Your task to perform on an android device: Search for seafood restaurants on Google Maps Image 0: 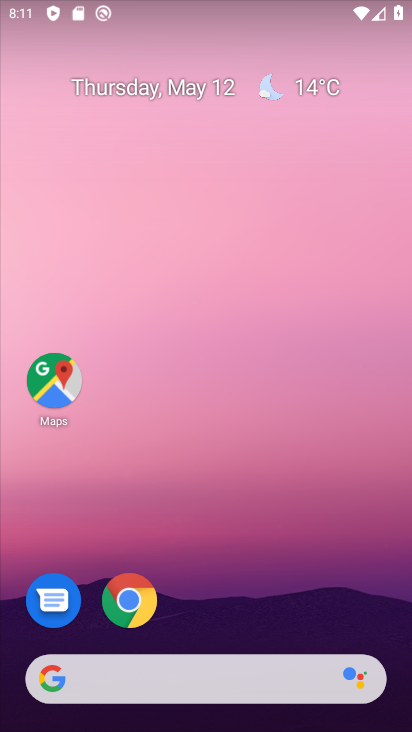
Step 0: drag from (196, 385) to (398, 165)
Your task to perform on an android device: Search for seafood restaurants on Google Maps Image 1: 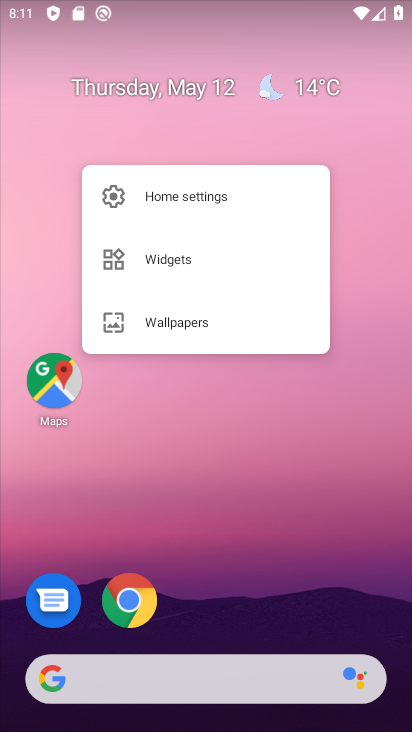
Step 1: click (218, 412)
Your task to perform on an android device: Search for seafood restaurants on Google Maps Image 2: 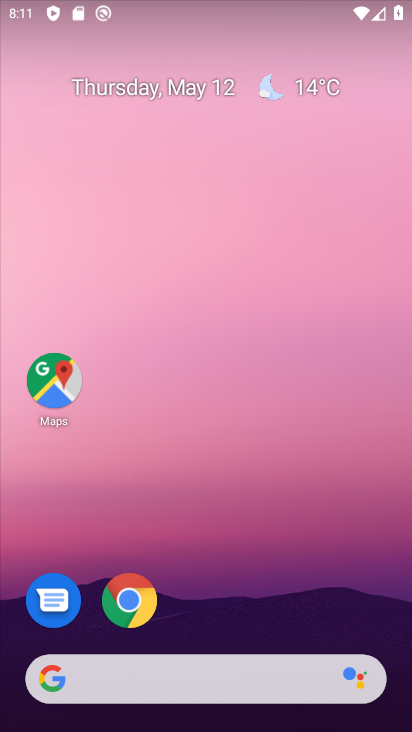
Step 2: click (218, 412)
Your task to perform on an android device: Search for seafood restaurants on Google Maps Image 3: 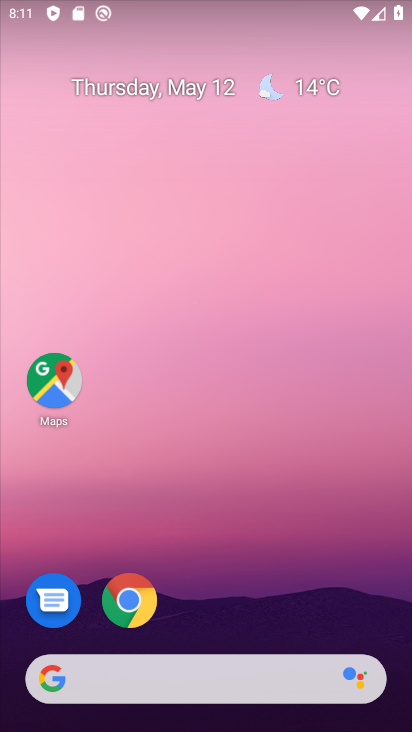
Step 3: click (71, 243)
Your task to perform on an android device: Search for seafood restaurants on Google Maps Image 4: 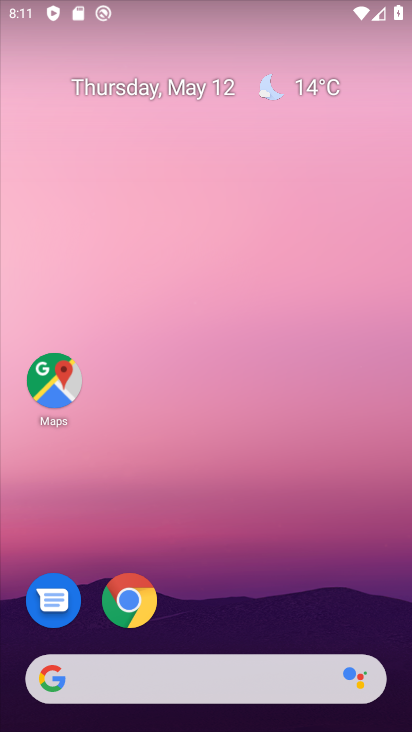
Step 4: drag from (71, 232) to (76, 65)
Your task to perform on an android device: Search for seafood restaurants on Google Maps Image 5: 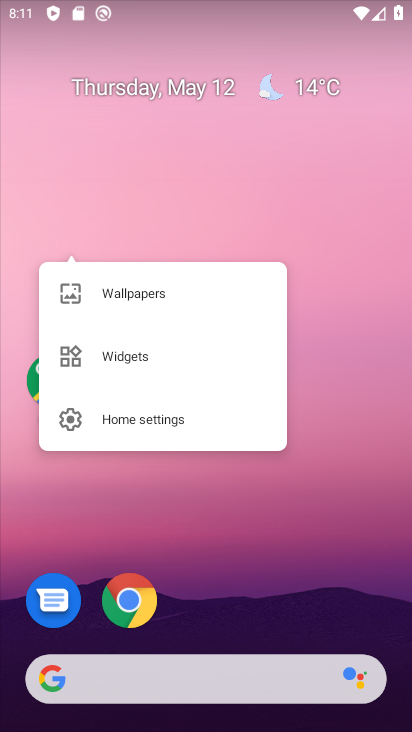
Step 5: drag from (224, 385) to (149, 21)
Your task to perform on an android device: Search for seafood restaurants on Google Maps Image 6: 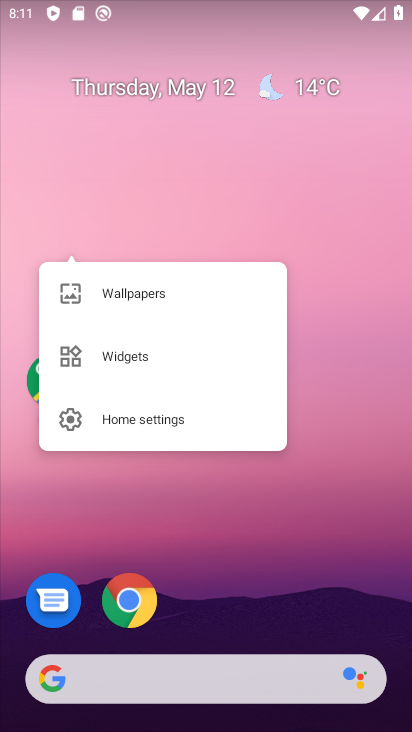
Step 6: drag from (70, 36) to (399, 248)
Your task to perform on an android device: Search for seafood restaurants on Google Maps Image 7: 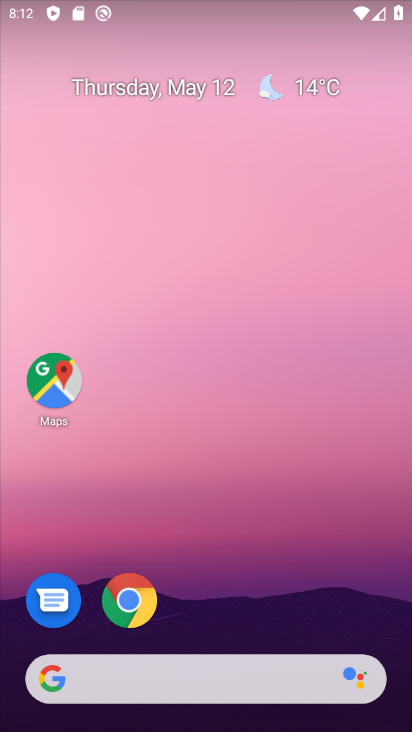
Step 7: drag from (263, 615) to (130, 1)
Your task to perform on an android device: Search for seafood restaurants on Google Maps Image 8: 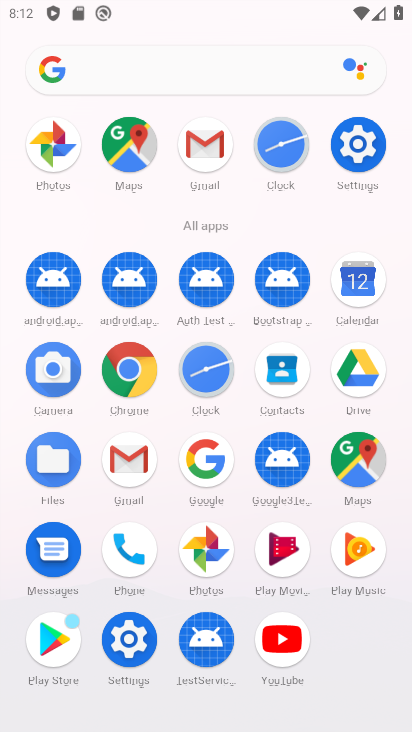
Step 8: click (119, 25)
Your task to perform on an android device: Search for seafood restaurants on Google Maps Image 9: 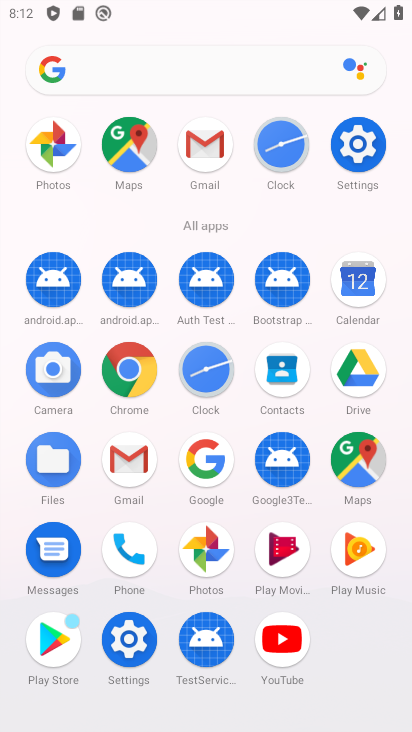
Step 9: drag from (49, 123) to (86, 46)
Your task to perform on an android device: Search for seafood restaurants on Google Maps Image 10: 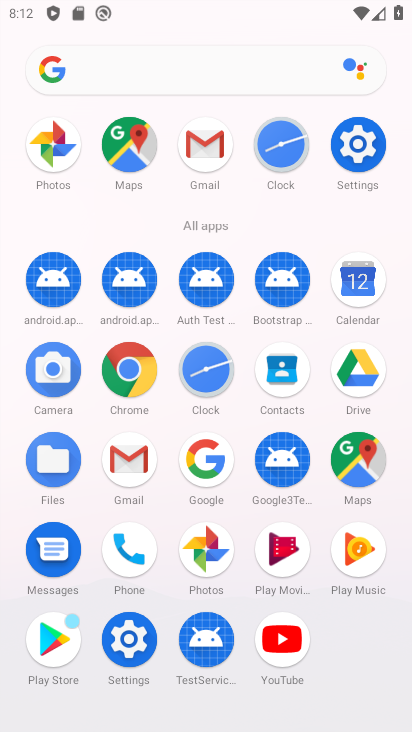
Step 10: drag from (145, 18) to (200, 498)
Your task to perform on an android device: Search for seafood restaurants on Google Maps Image 11: 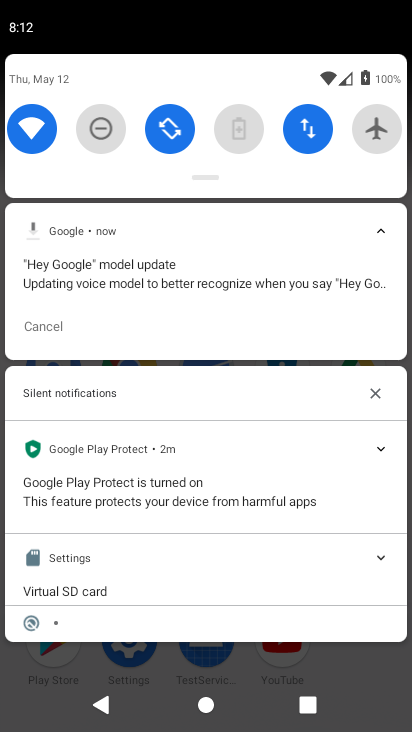
Step 11: click (178, 481)
Your task to perform on an android device: Search for seafood restaurants on Google Maps Image 12: 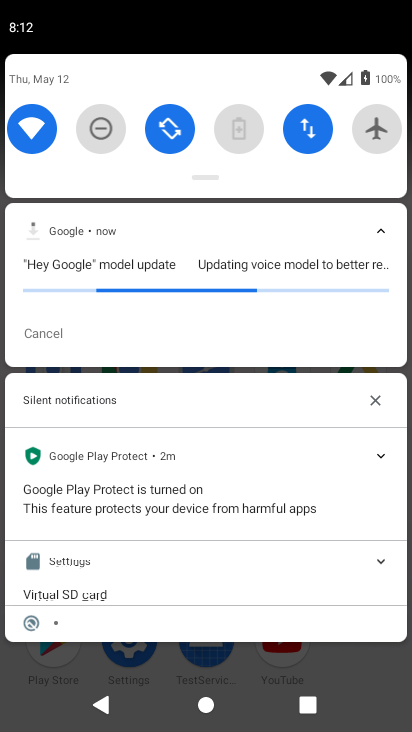
Step 12: click (129, 159)
Your task to perform on an android device: Search for seafood restaurants on Google Maps Image 13: 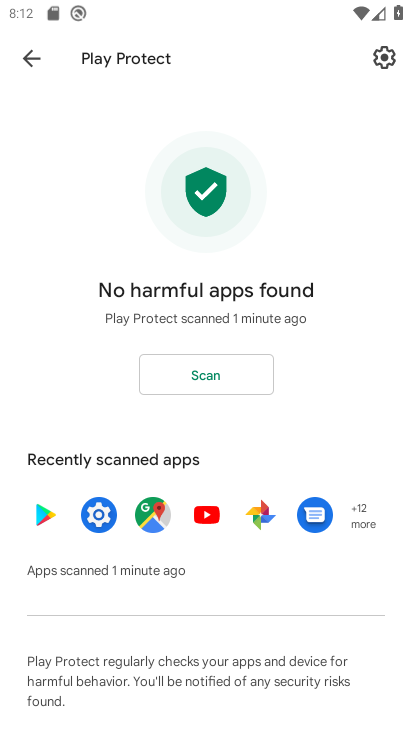
Step 13: press back button
Your task to perform on an android device: Search for seafood restaurants on Google Maps Image 14: 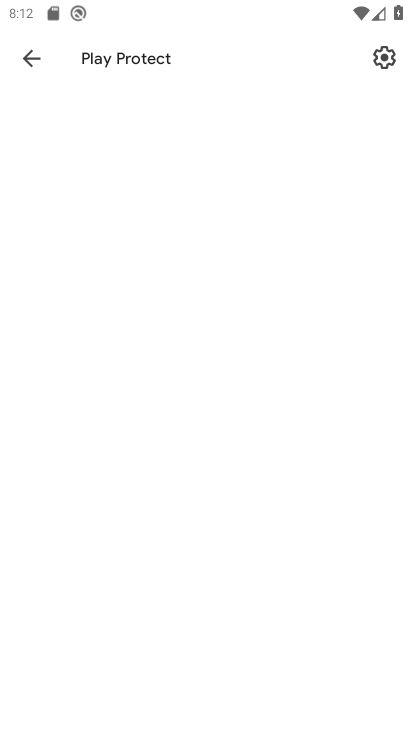
Step 14: press back button
Your task to perform on an android device: Search for seafood restaurants on Google Maps Image 15: 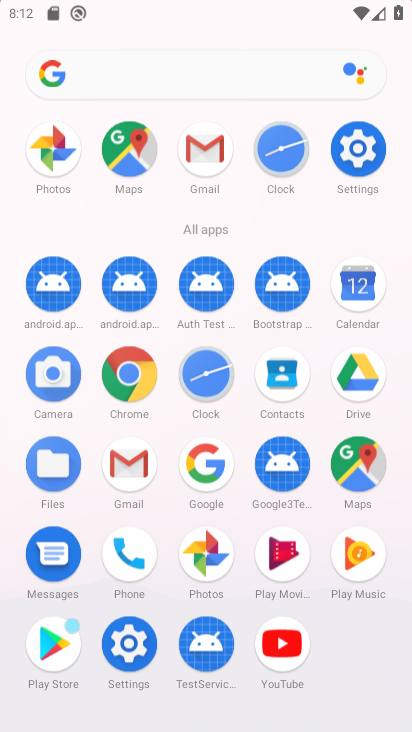
Step 15: press back button
Your task to perform on an android device: Search for seafood restaurants on Google Maps Image 16: 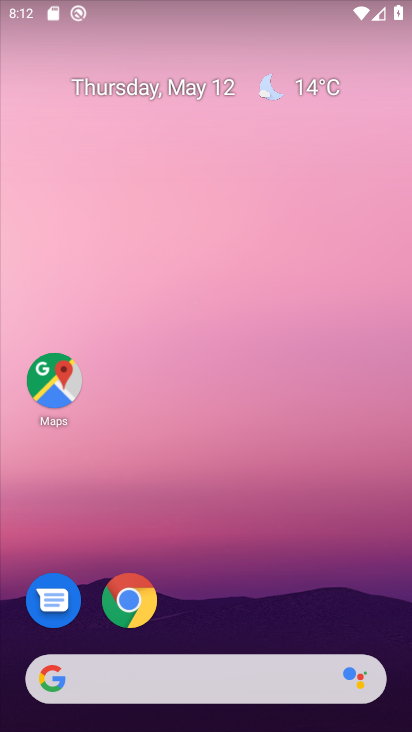
Step 16: drag from (248, 667) to (97, 49)
Your task to perform on an android device: Search for seafood restaurants on Google Maps Image 17: 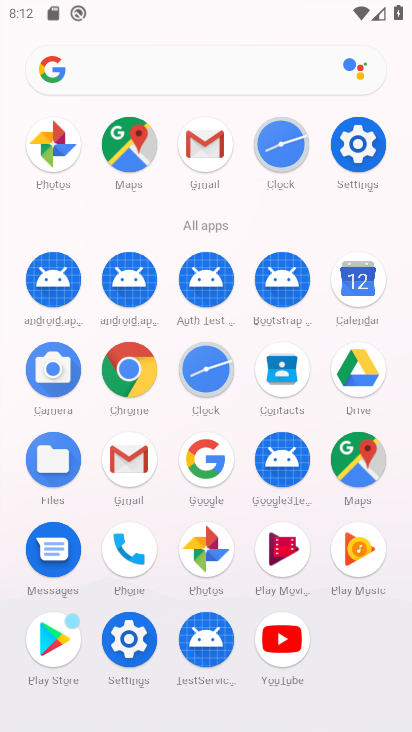
Step 17: drag from (282, 487) to (128, 17)
Your task to perform on an android device: Search for seafood restaurants on Google Maps Image 18: 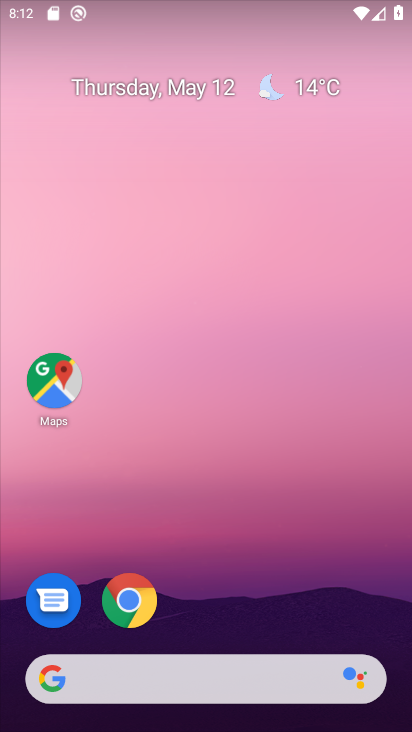
Step 18: drag from (195, 583) to (68, 24)
Your task to perform on an android device: Search for seafood restaurants on Google Maps Image 19: 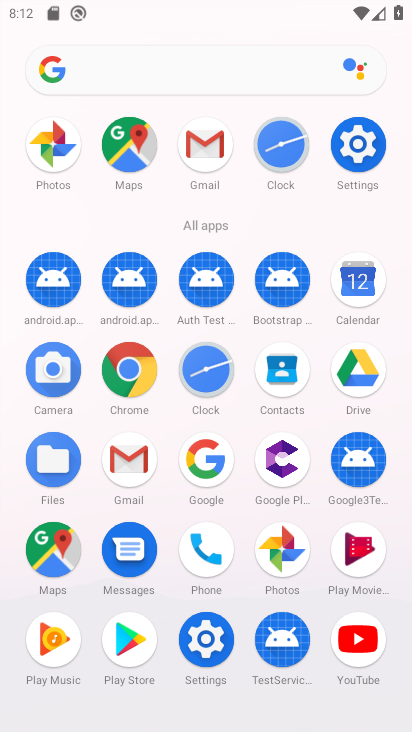
Step 19: click (124, 140)
Your task to perform on an android device: Search for seafood restaurants on Google Maps Image 20: 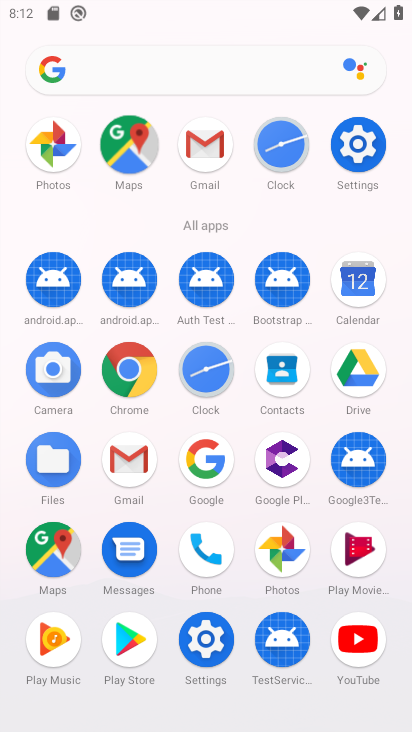
Step 20: click (124, 140)
Your task to perform on an android device: Search for seafood restaurants on Google Maps Image 21: 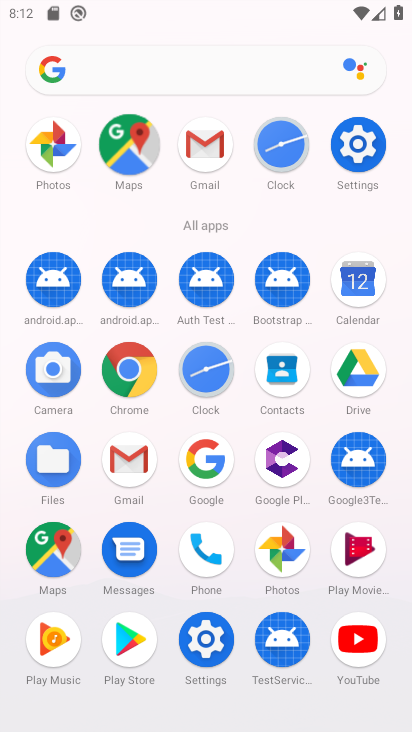
Step 21: click (124, 140)
Your task to perform on an android device: Search for seafood restaurants on Google Maps Image 22: 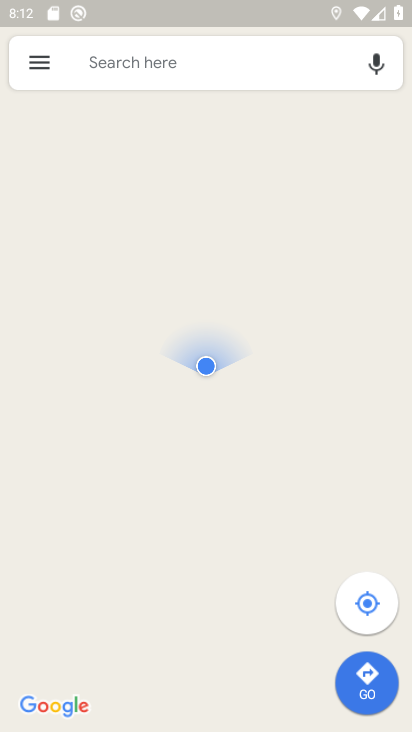
Step 22: click (103, 53)
Your task to perform on an android device: Search for seafood restaurants on Google Maps Image 23: 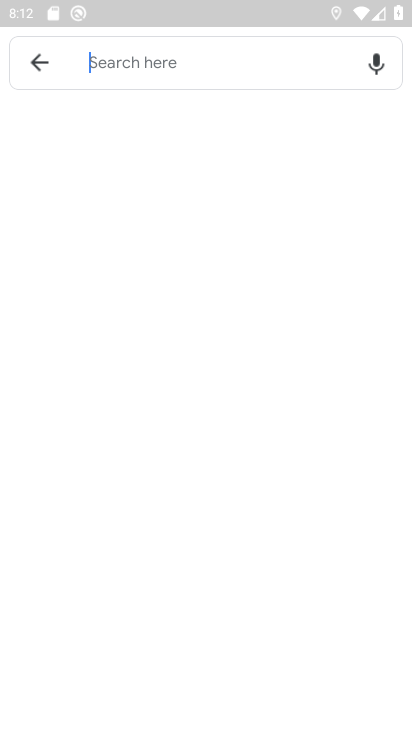
Step 23: click (103, 53)
Your task to perform on an android device: Search for seafood restaurants on Google Maps Image 24: 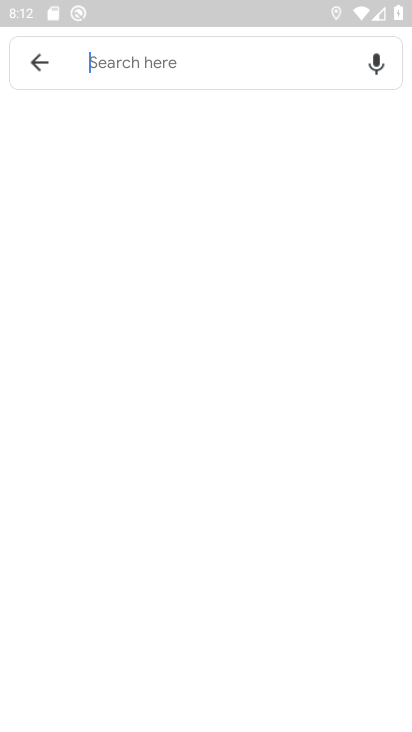
Step 24: click (103, 53)
Your task to perform on an android device: Search for seafood restaurants on Google Maps Image 25: 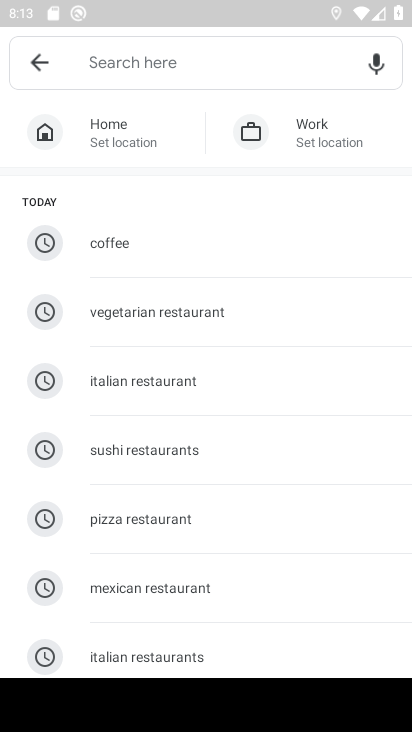
Step 25: type "seafood restaurants"
Your task to perform on an android device: Search for seafood restaurants on Google Maps Image 26: 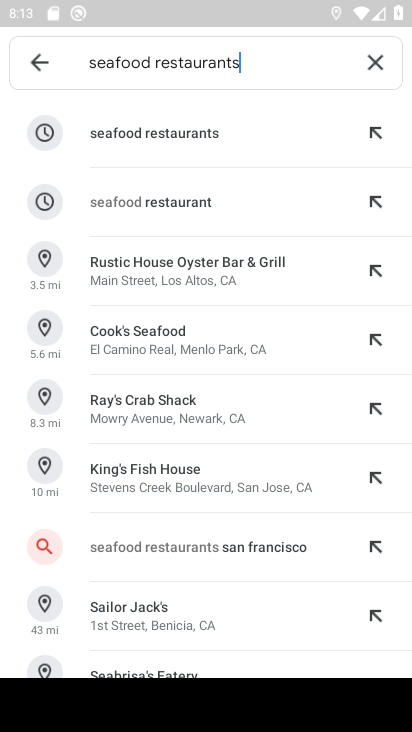
Step 26: click (197, 138)
Your task to perform on an android device: Search for seafood restaurants on Google Maps Image 27: 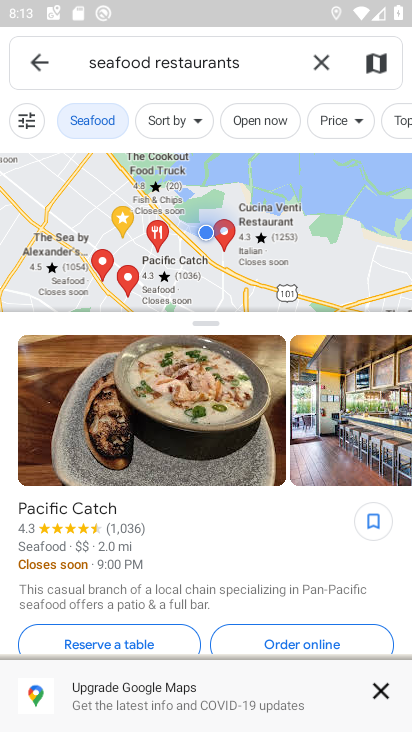
Step 27: task complete